Your task to perform on an android device: open app "DuckDuckGo Privacy Browser" (install if not already installed) Image 0: 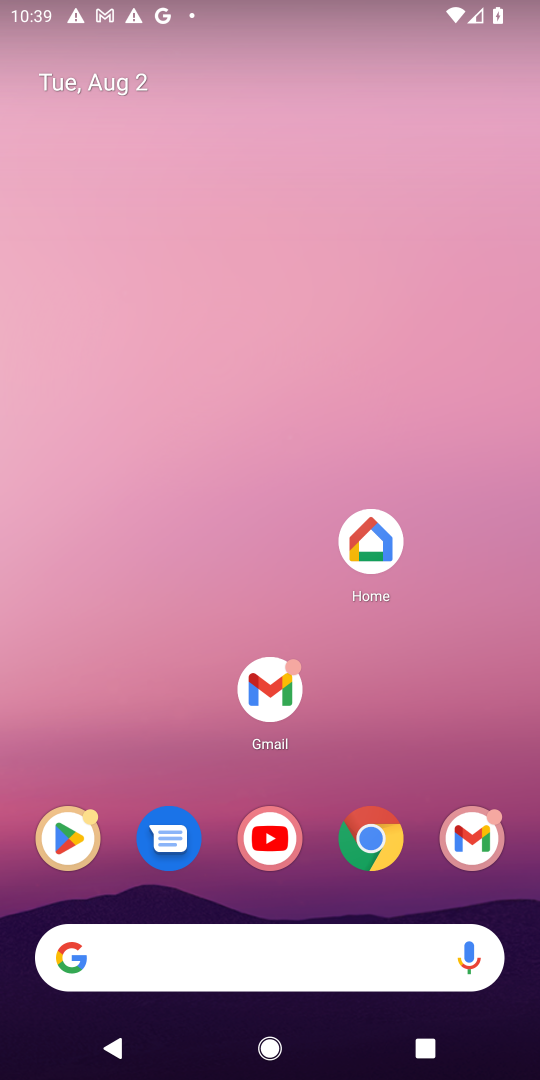
Step 0: drag from (209, 555) to (270, 64)
Your task to perform on an android device: open app "DuckDuckGo Privacy Browser" (install if not already installed) Image 1: 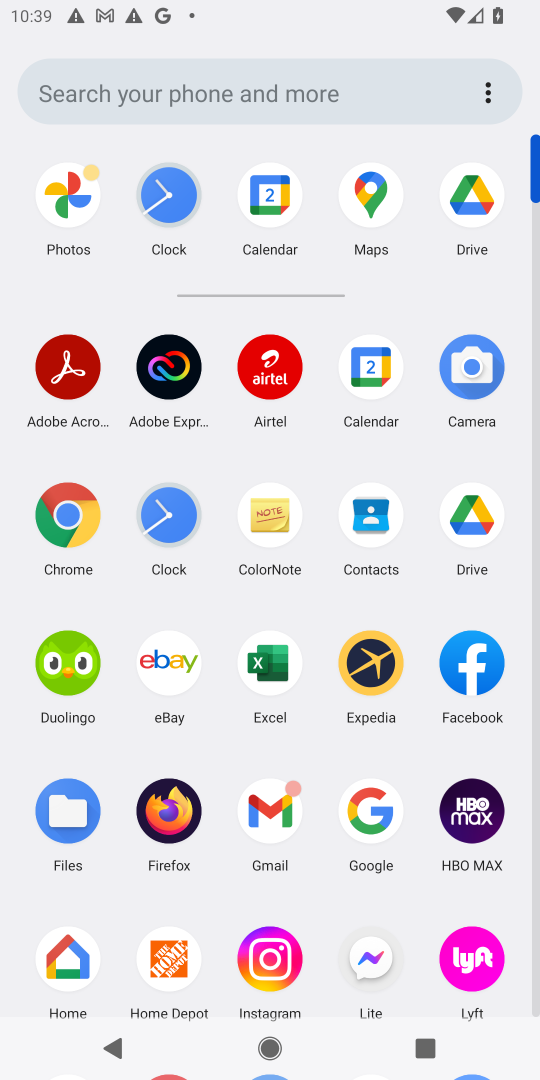
Step 1: drag from (318, 751) to (303, 421)
Your task to perform on an android device: open app "DuckDuckGo Privacy Browser" (install if not already installed) Image 2: 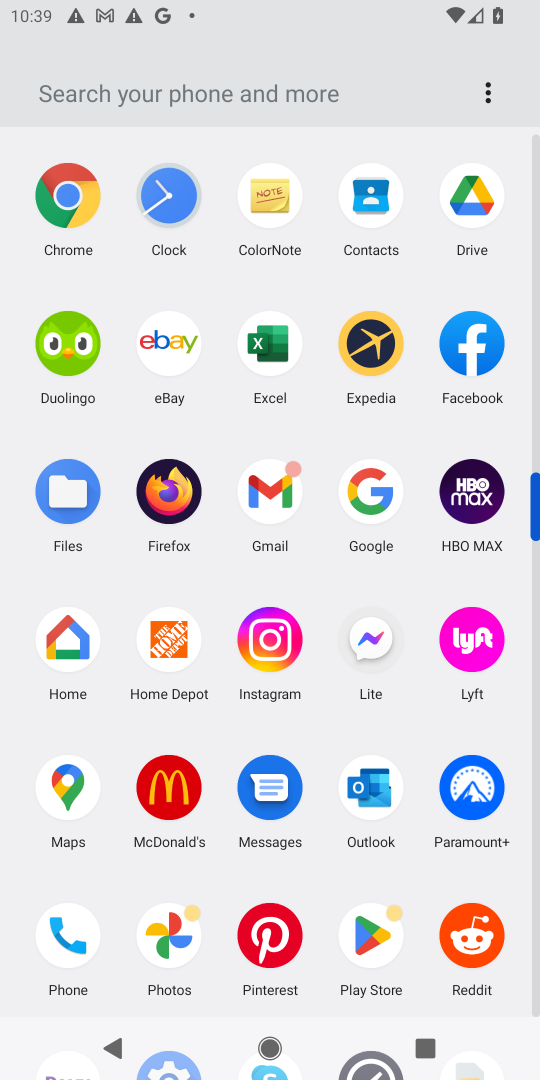
Step 2: drag from (312, 860) to (310, 534)
Your task to perform on an android device: open app "DuckDuckGo Privacy Browser" (install if not already installed) Image 3: 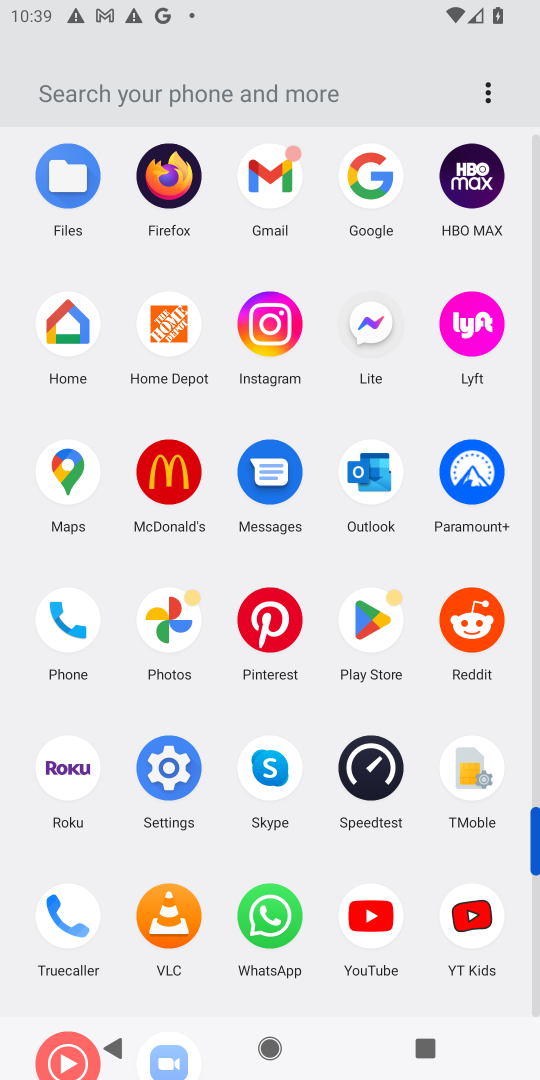
Step 3: click (369, 630)
Your task to perform on an android device: open app "DuckDuckGo Privacy Browser" (install if not already installed) Image 4: 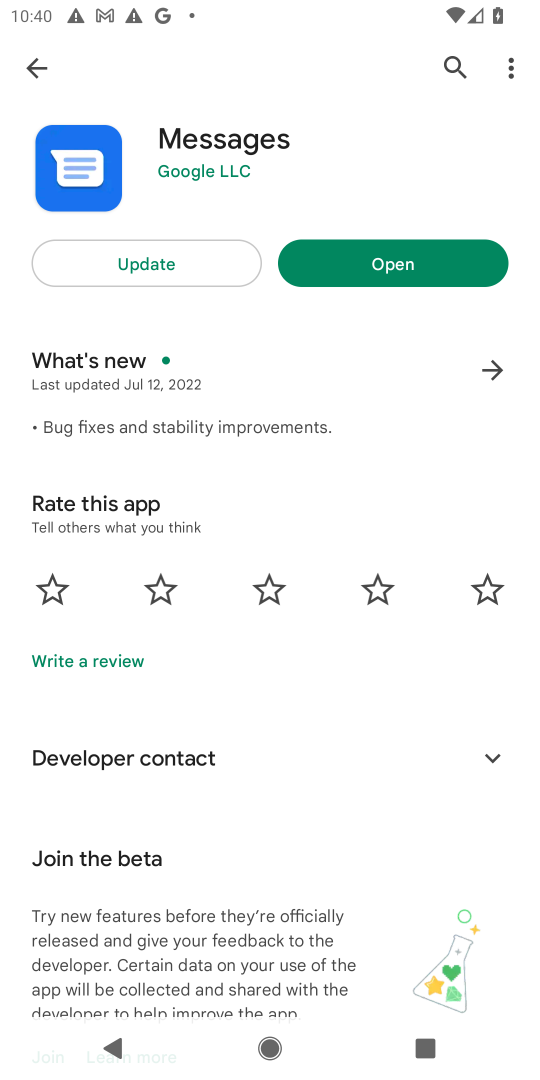
Step 4: click (451, 80)
Your task to perform on an android device: open app "DuckDuckGo Privacy Browser" (install if not already installed) Image 5: 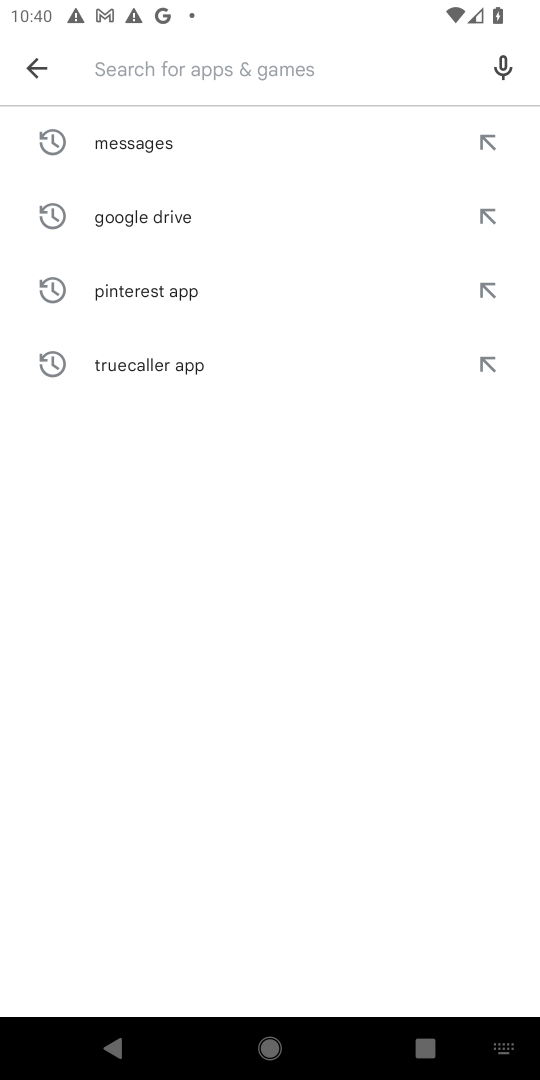
Step 5: click (378, 76)
Your task to perform on an android device: open app "DuckDuckGo Privacy Browser" (install if not already installed) Image 6: 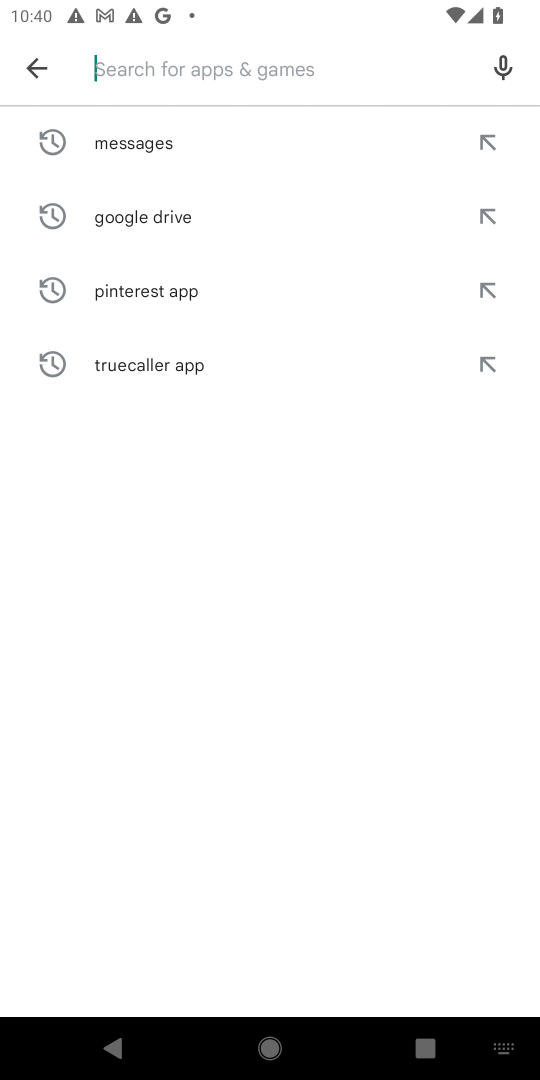
Step 6: type "DuckDuckGo Privacy Browser"
Your task to perform on an android device: open app "DuckDuckGo Privacy Browser" (install if not already installed) Image 7: 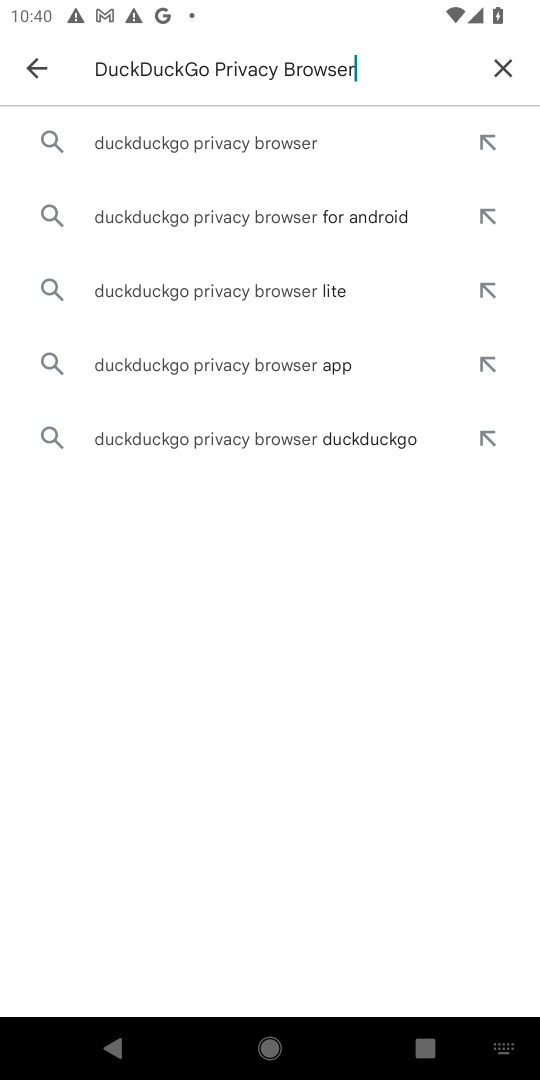
Step 7: click (300, 144)
Your task to perform on an android device: open app "DuckDuckGo Privacy Browser" (install if not already installed) Image 8: 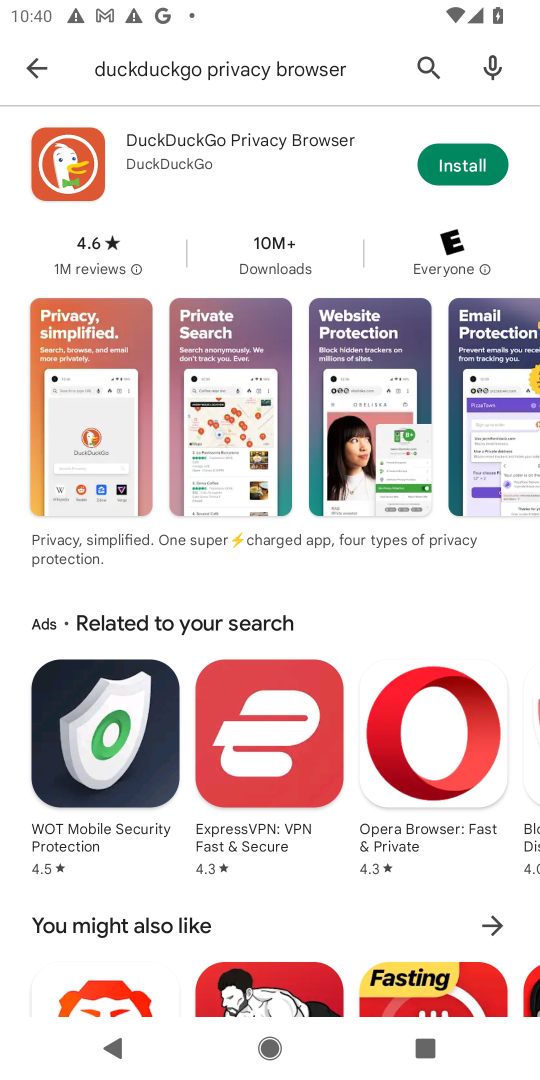
Step 8: click (472, 168)
Your task to perform on an android device: open app "DuckDuckGo Privacy Browser" (install if not already installed) Image 9: 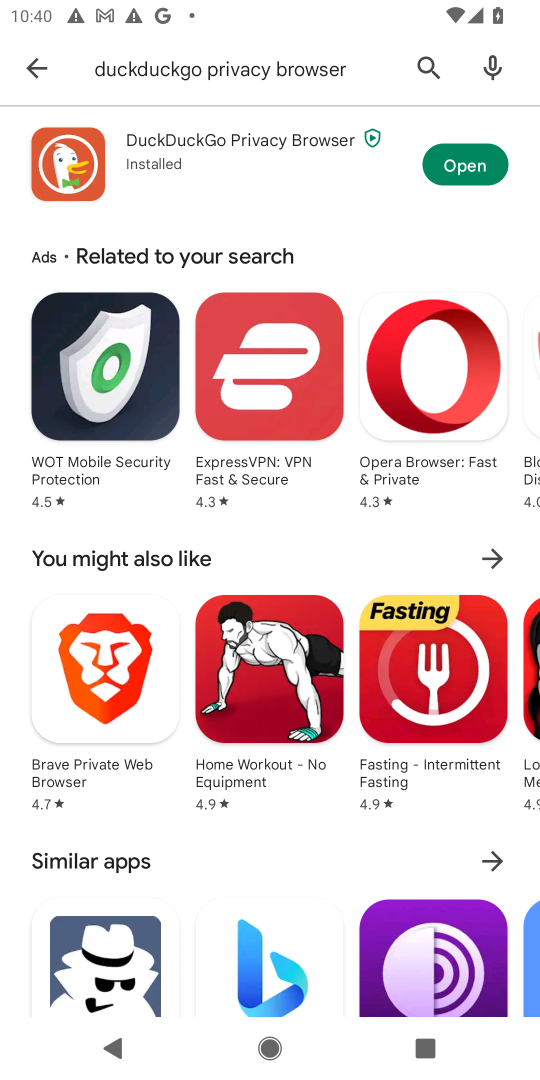
Step 9: click (471, 165)
Your task to perform on an android device: open app "DuckDuckGo Privacy Browser" (install if not already installed) Image 10: 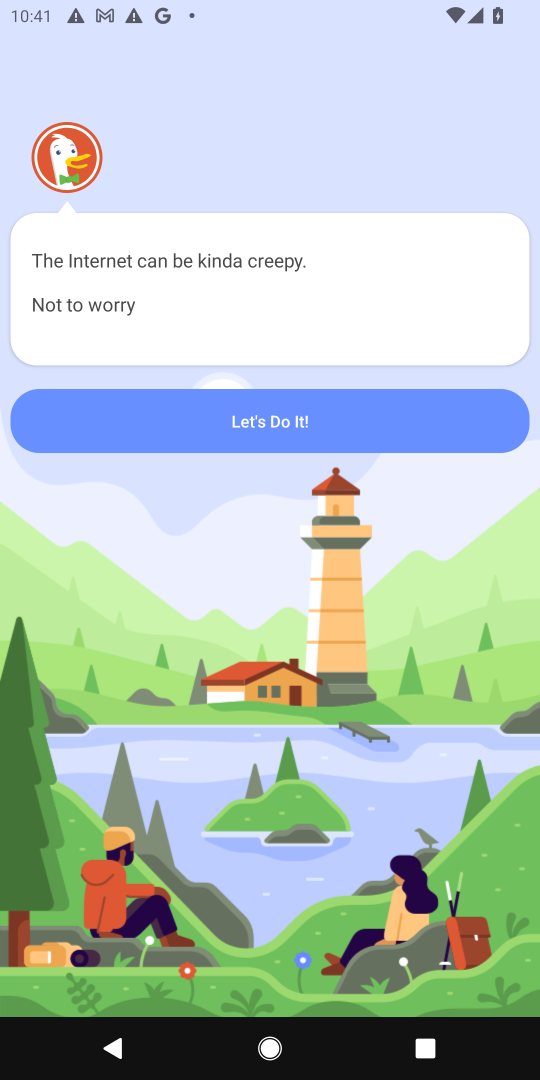
Step 10: task complete